Your task to perform on an android device: move an email to a new category in the gmail app Image 0: 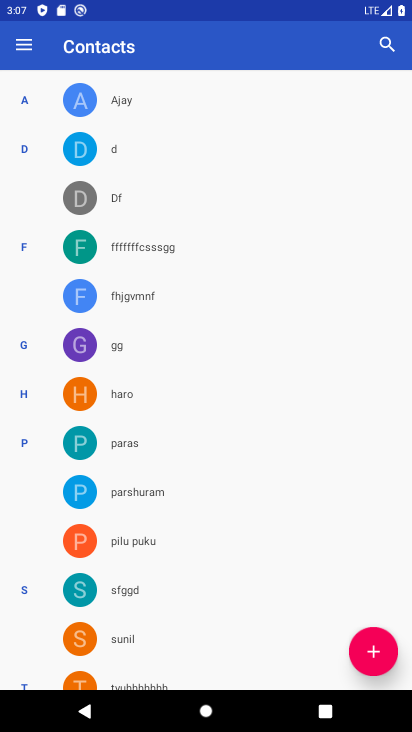
Step 0: press home button
Your task to perform on an android device: move an email to a new category in the gmail app Image 1: 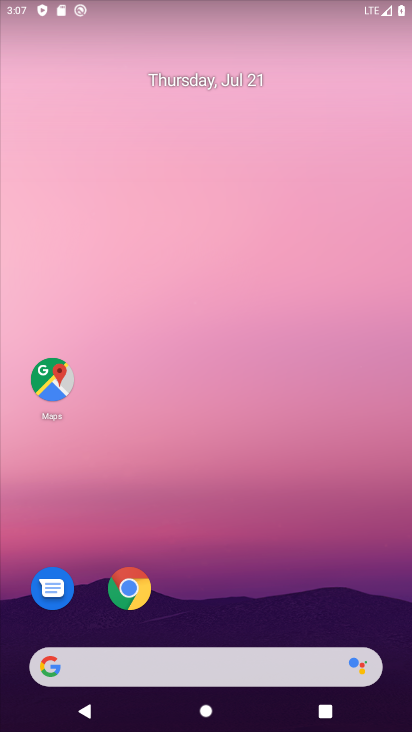
Step 1: drag from (288, 545) to (288, 184)
Your task to perform on an android device: move an email to a new category in the gmail app Image 2: 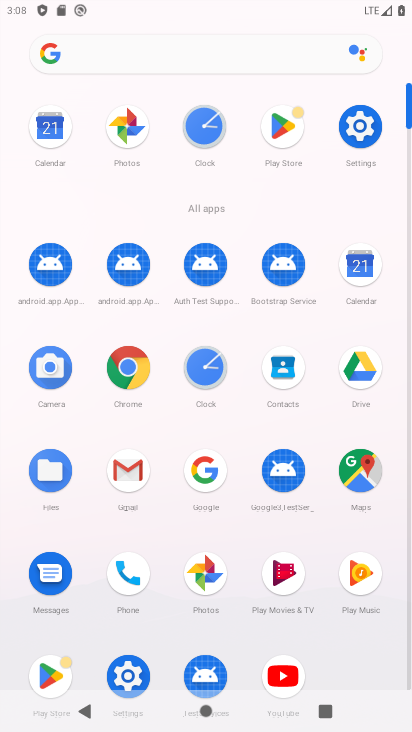
Step 2: click (128, 456)
Your task to perform on an android device: move an email to a new category in the gmail app Image 3: 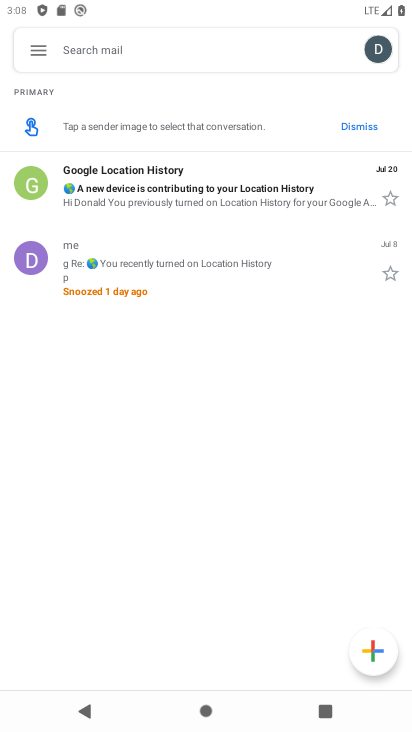
Step 3: click (251, 190)
Your task to perform on an android device: move an email to a new category in the gmail app Image 4: 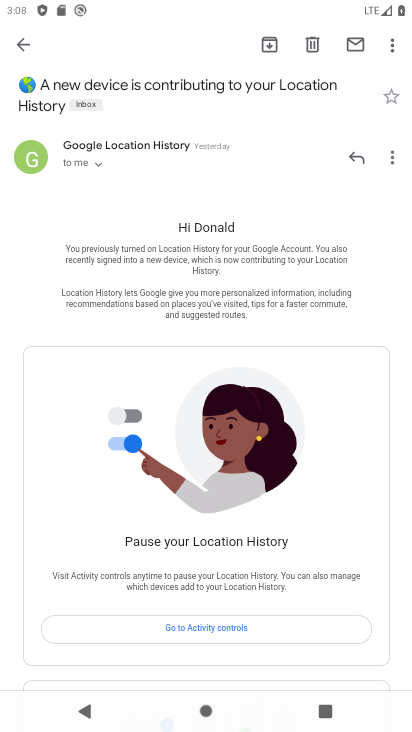
Step 4: click (388, 52)
Your task to perform on an android device: move an email to a new category in the gmail app Image 5: 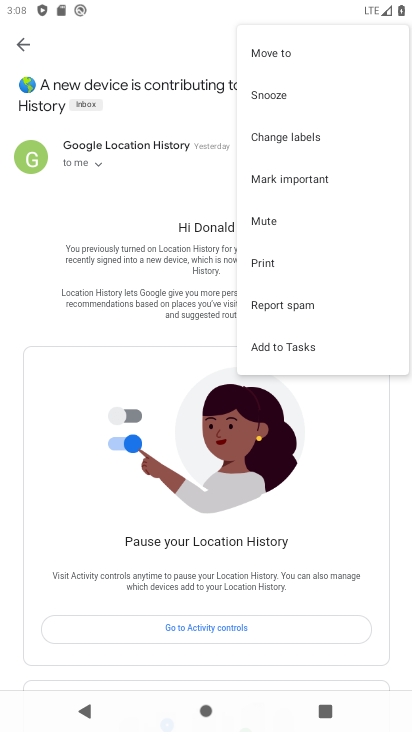
Step 5: click (297, 185)
Your task to perform on an android device: move an email to a new category in the gmail app Image 6: 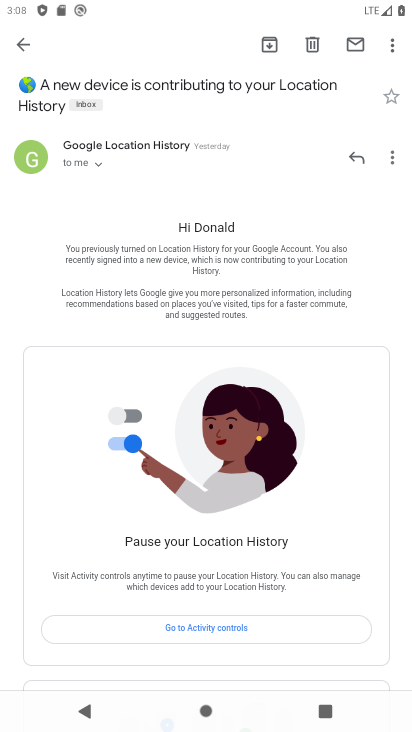
Step 6: task complete